Your task to perform on an android device: open a bookmark in the chrome app Image 0: 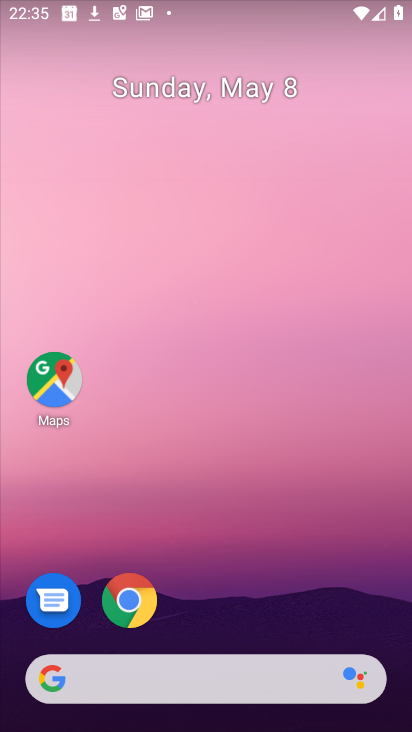
Step 0: drag from (230, 697) to (247, 204)
Your task to perform on an android device: open a bookmark in the chrome app Image 1: 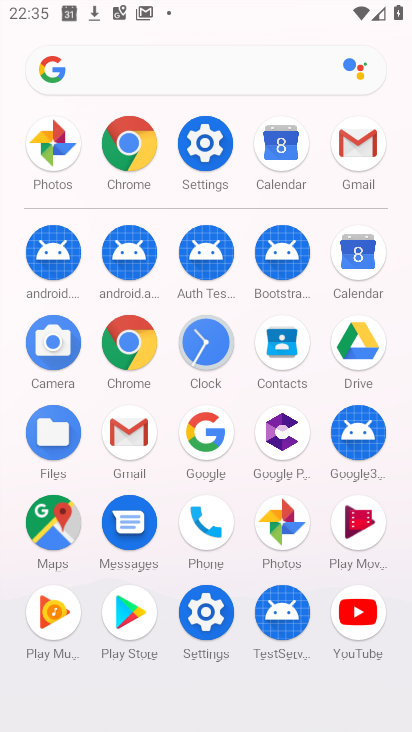
Step 1: click (139, 163)
Your task to perform on an android device: open a bookmark in the chrome app Image 2: 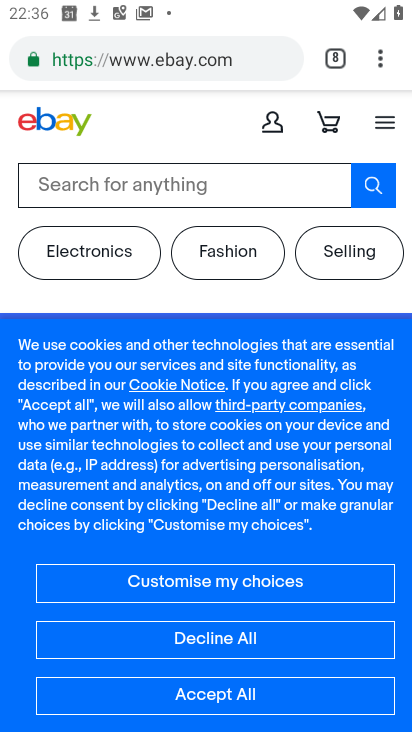
Step 2: click (380, 72)
Your task to perform on an android device: open a bookmark in the chrome app Image 3: 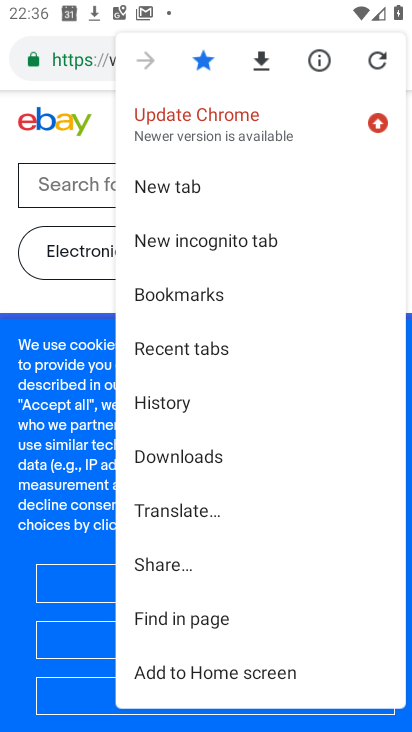
Step 3: click (200, 293)
Your task to perform on an android device: open a bookmark in the chrome app Image 4: 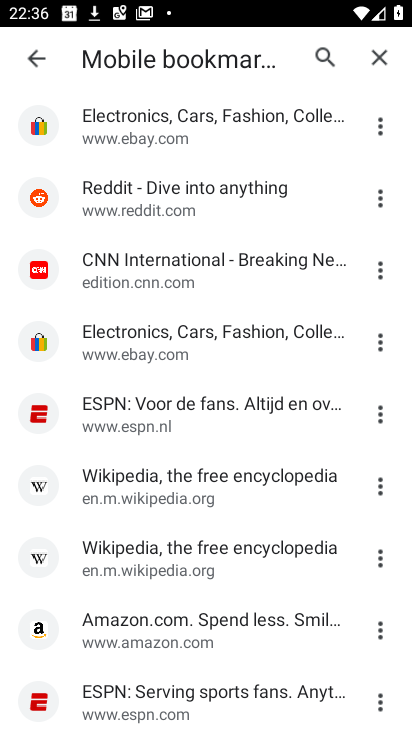
Step 4: click (129, 483)
Your task to perform on an android device: open a bookmark in the chrome app Image 5: 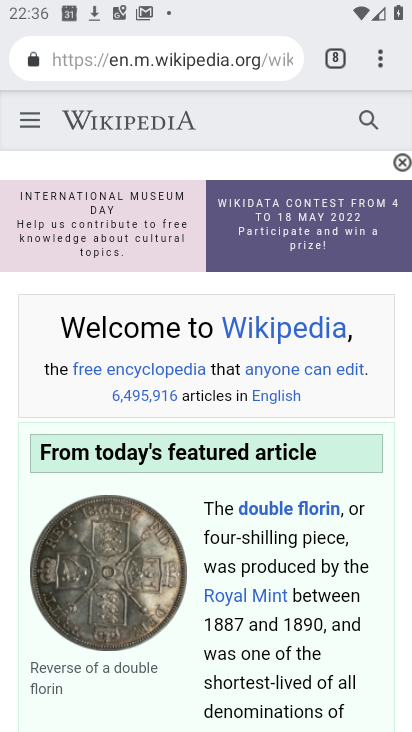
Step 5: task complete